Your task to perform on an android device: toggle translation in the chrome app Image 0: 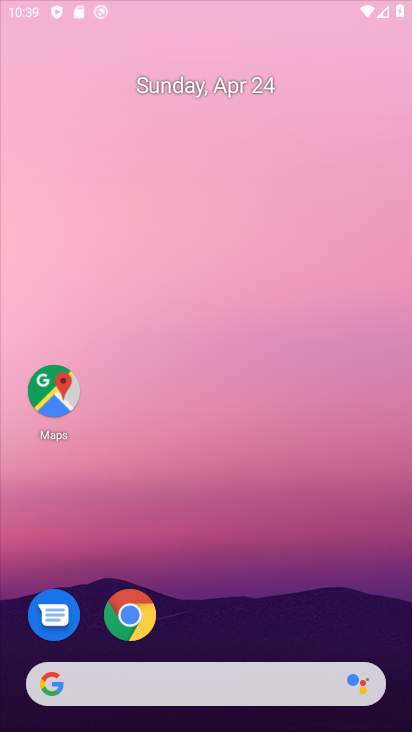
Step 0: drag from (208, 642) to (206, 116)
Your task to perform on an android device: toggle translation in the chrome app Image 1: 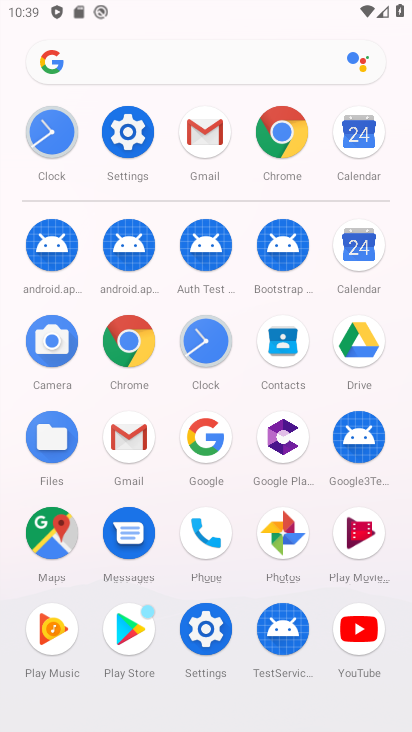
Step 1: click (128, 333)
Your task to perform on an android device: toggle translation in the chrome app Image 2: 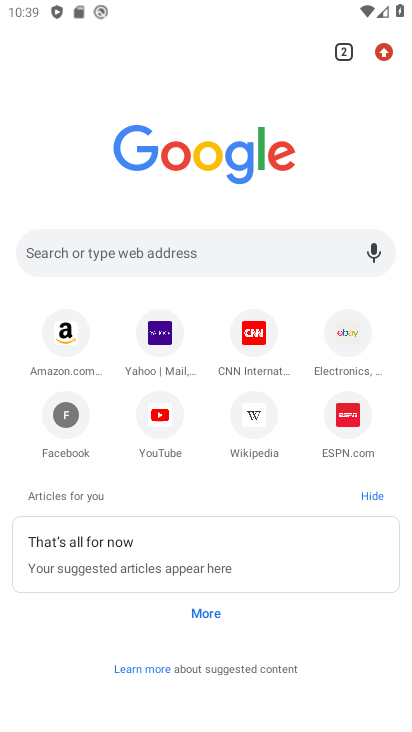
Step 2: click (381, 48)
Your task to perform on an android device: toggle translation in the chrome app Image 3: 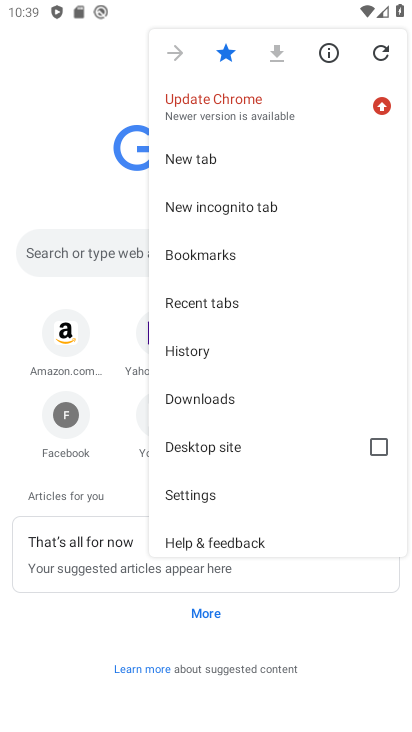
Step 3: click (227, 492)
Your task to perform on an android device: toggle translation in the chrome app Image 4: 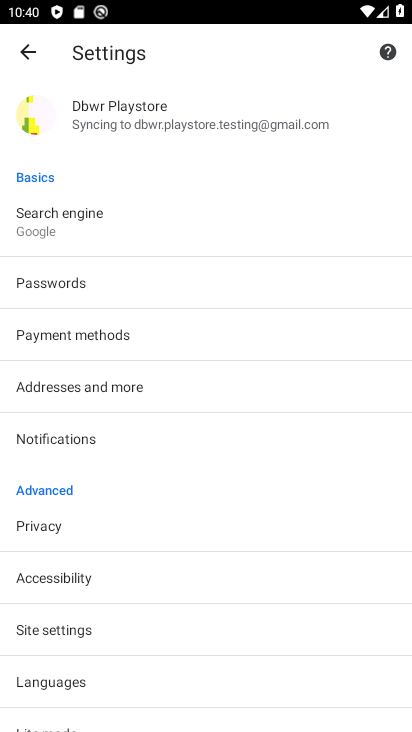
Step 4: click (125, 679)
Your task to perform on an android device: toggle translation in the chrome app Image 5: 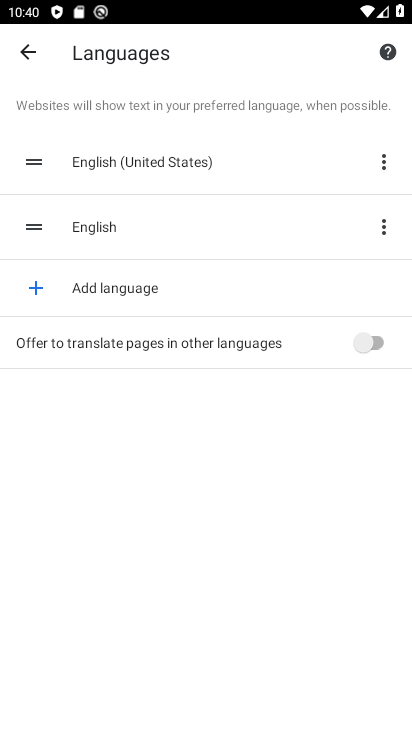
Step 5: click (369, 337)
Your task to perform on an android device: toggle translation in the chrome app Image 6: 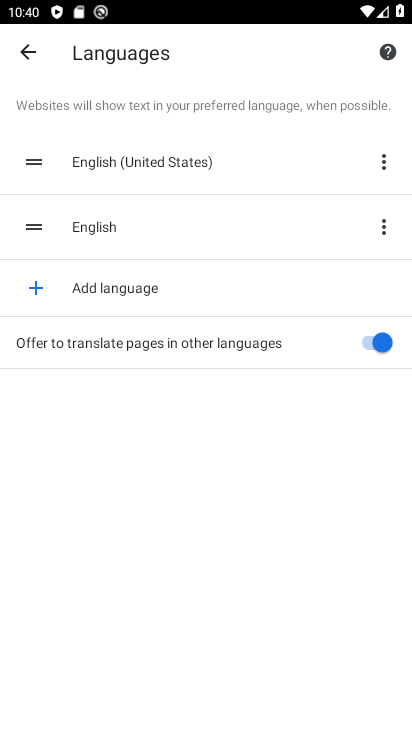
Step 6: task complete